Your task to perform on an android device: toggle translation in the chrome app Image 0: 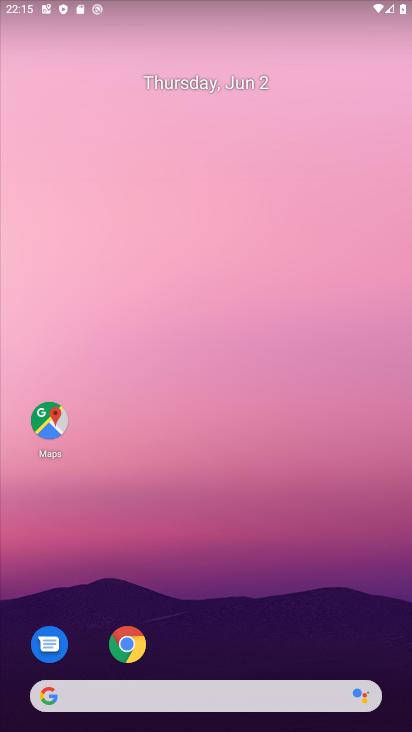
Step 0: click (115, 649)
Your task to perform on an android device: toggle translation in the chrome app Image 1: 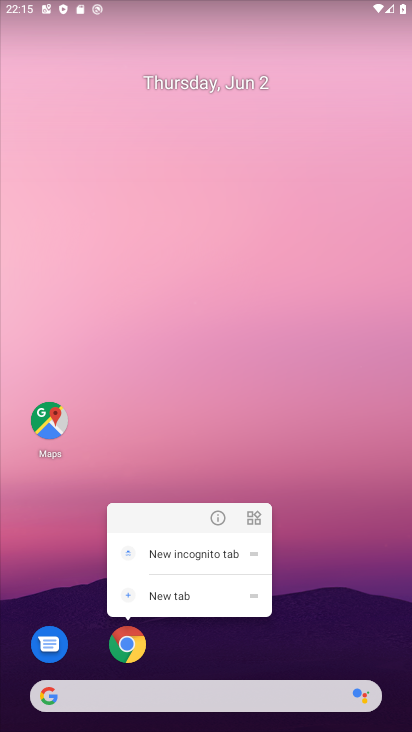
Step 1: click (108, 671)
Your task to perform on an android device: toggle translation in the chrome app Image 2: 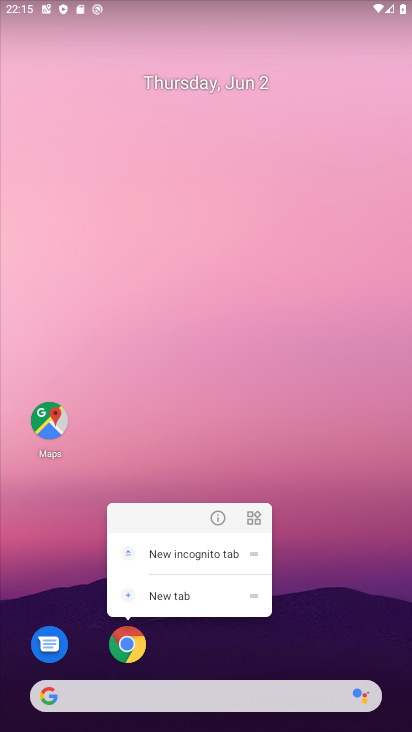
Step 2: click (117, 667)
Your task to perform on an android device: toggle translation in the chrome app Image 3: 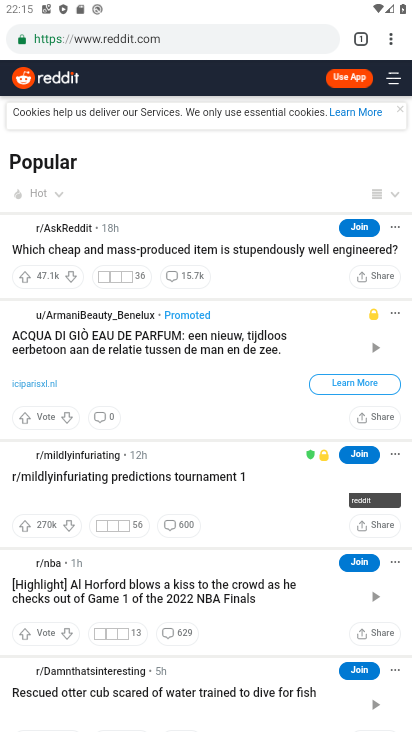
Step 3: click (386, 40)
Your task to perform on an android device: toggle translation in the chrome app Image 4: 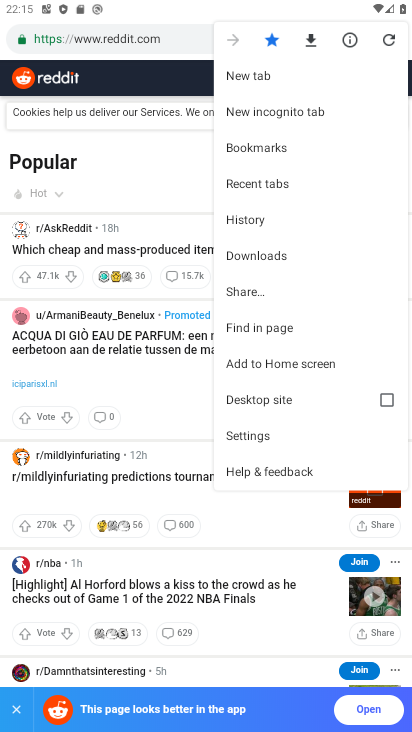
Step 4: click (261, 435)
Your task to perform on an android device: toggle translation in the chrome app Image 5: 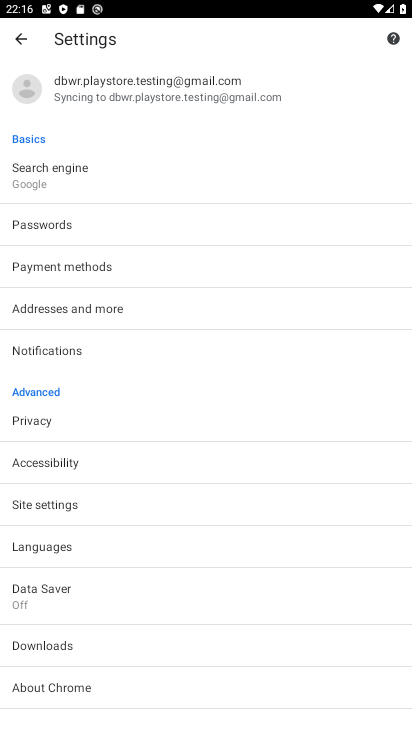
Step 5: click (50, 548)
Your task to perform on an android device: toggle translation in the chrome app Image 6: 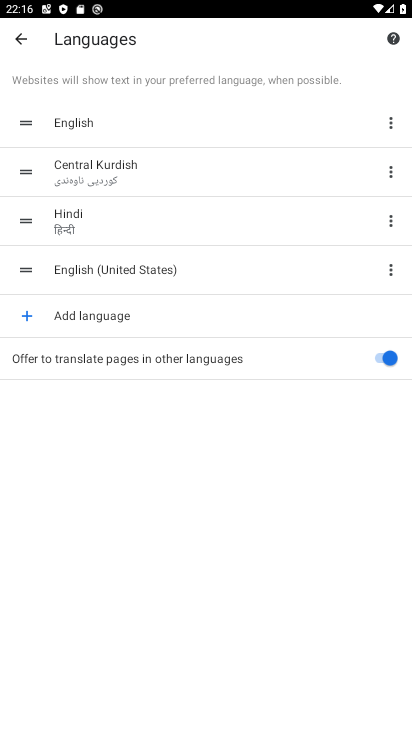
Step 6: click (373, 360)
Your task to perform on an android device: toggle translation in the chrome app Image 7: 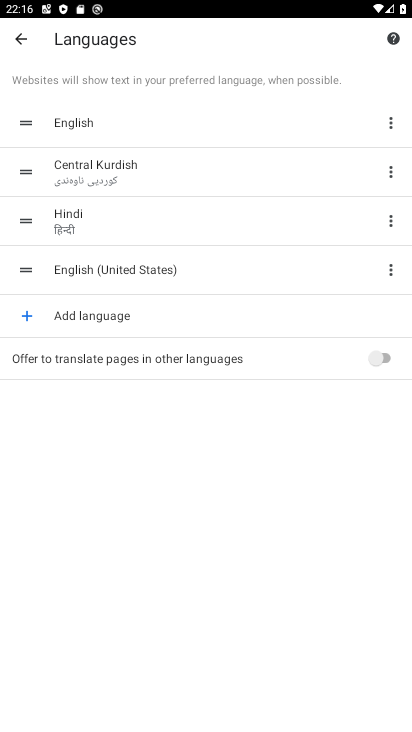
Step 7: task complete